Your task to perform on an android device: View the shopping cart on amazon.com. Image 0: 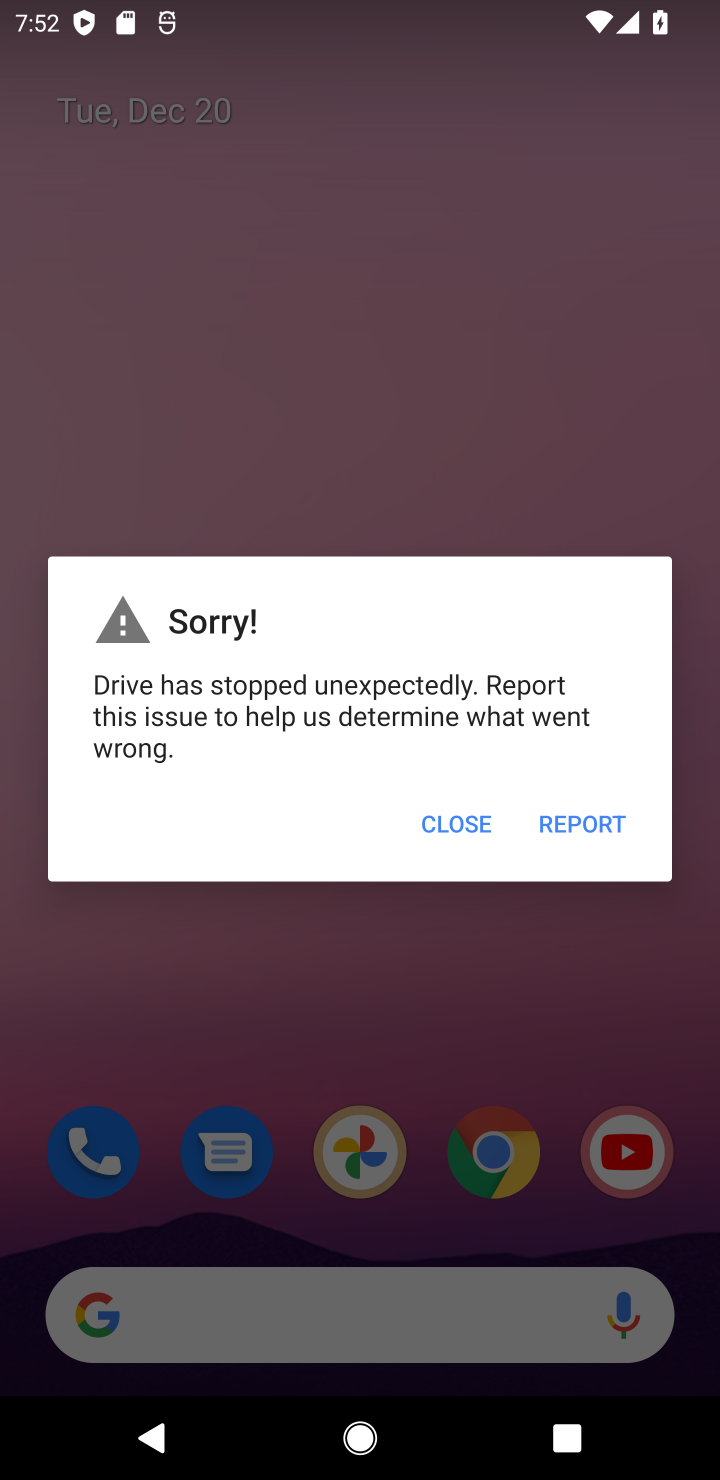
Step 0: press home button
Your task to perform on an android device: View the shopping cart on amazon.com. Image 1: 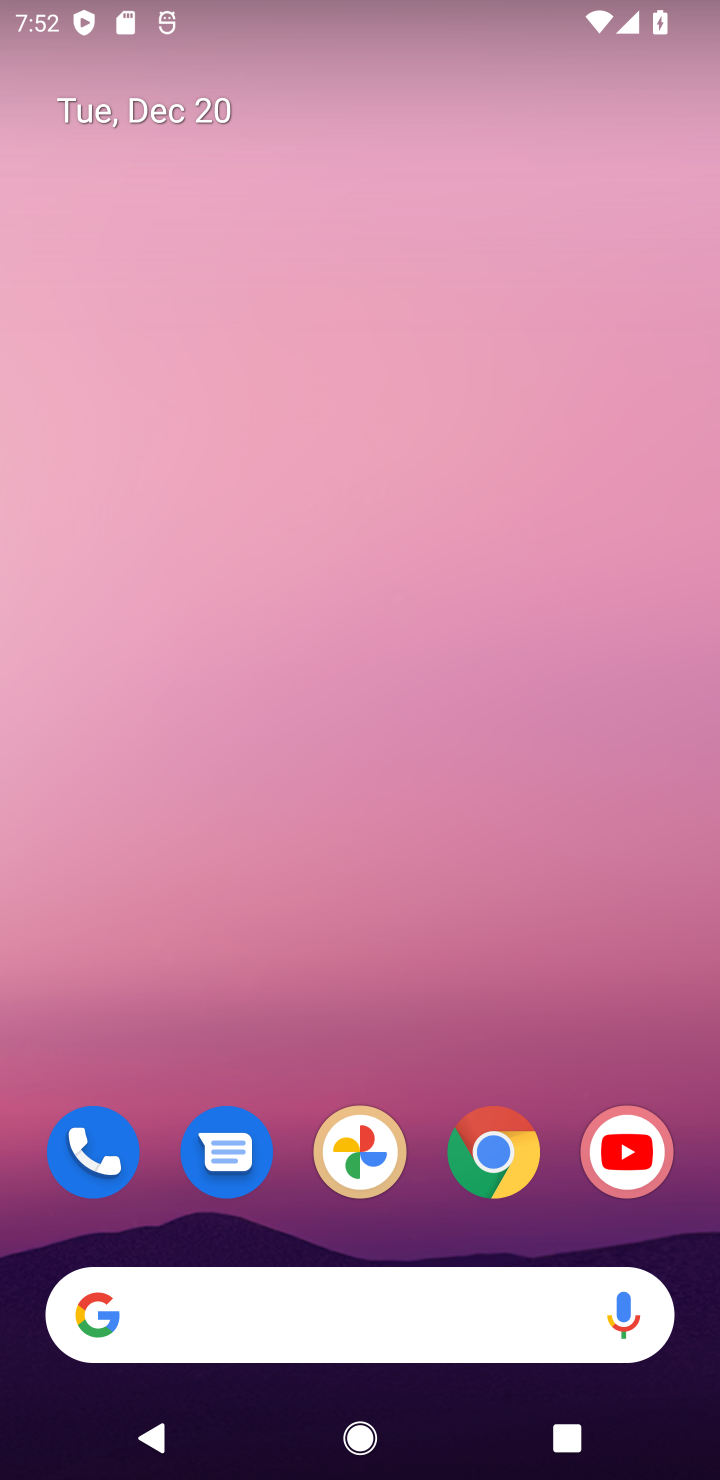
Step 1: click (489, 1158)
Your task to perform on an android device: View the shopping cart on amazon.com. Image 2: 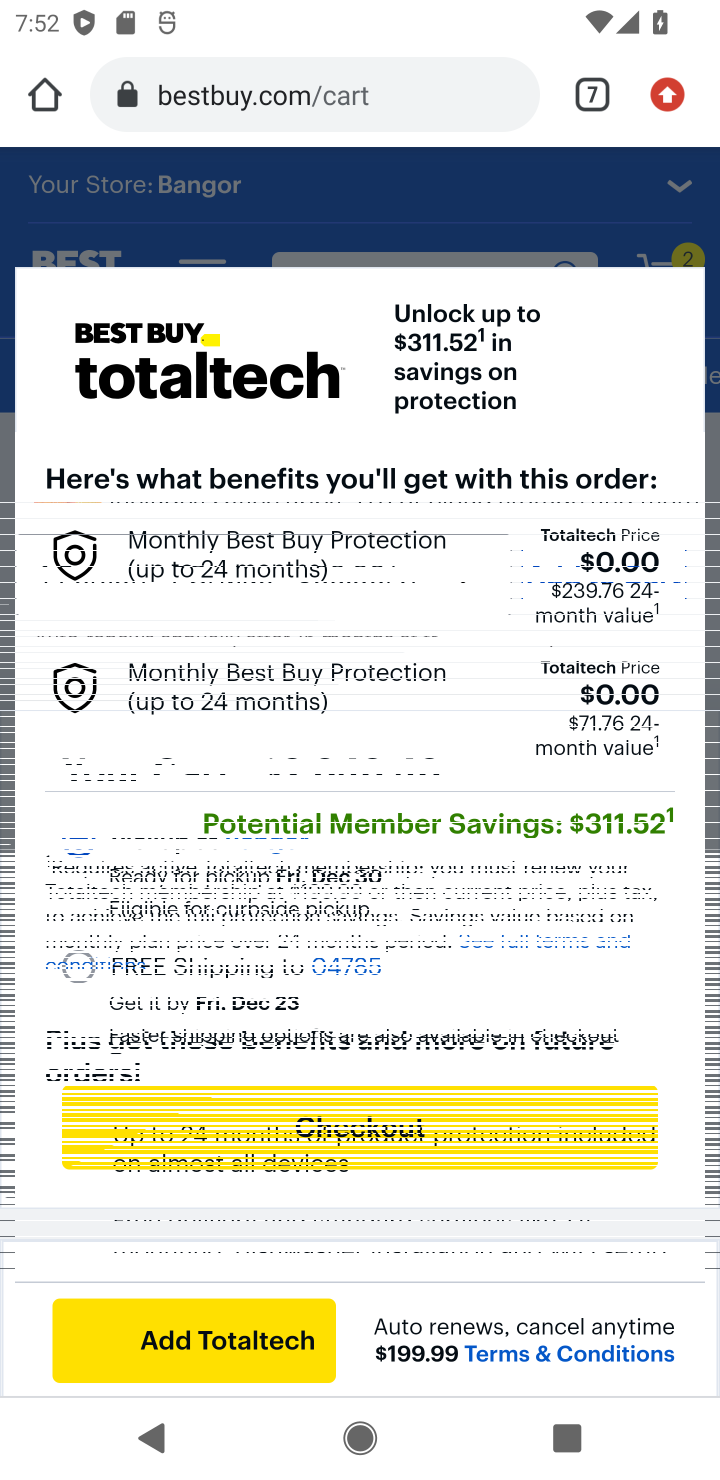
Step 2: click (591, 105)
Your task to perform on an android device: View the shopping cart on amazon.com. Image 3: 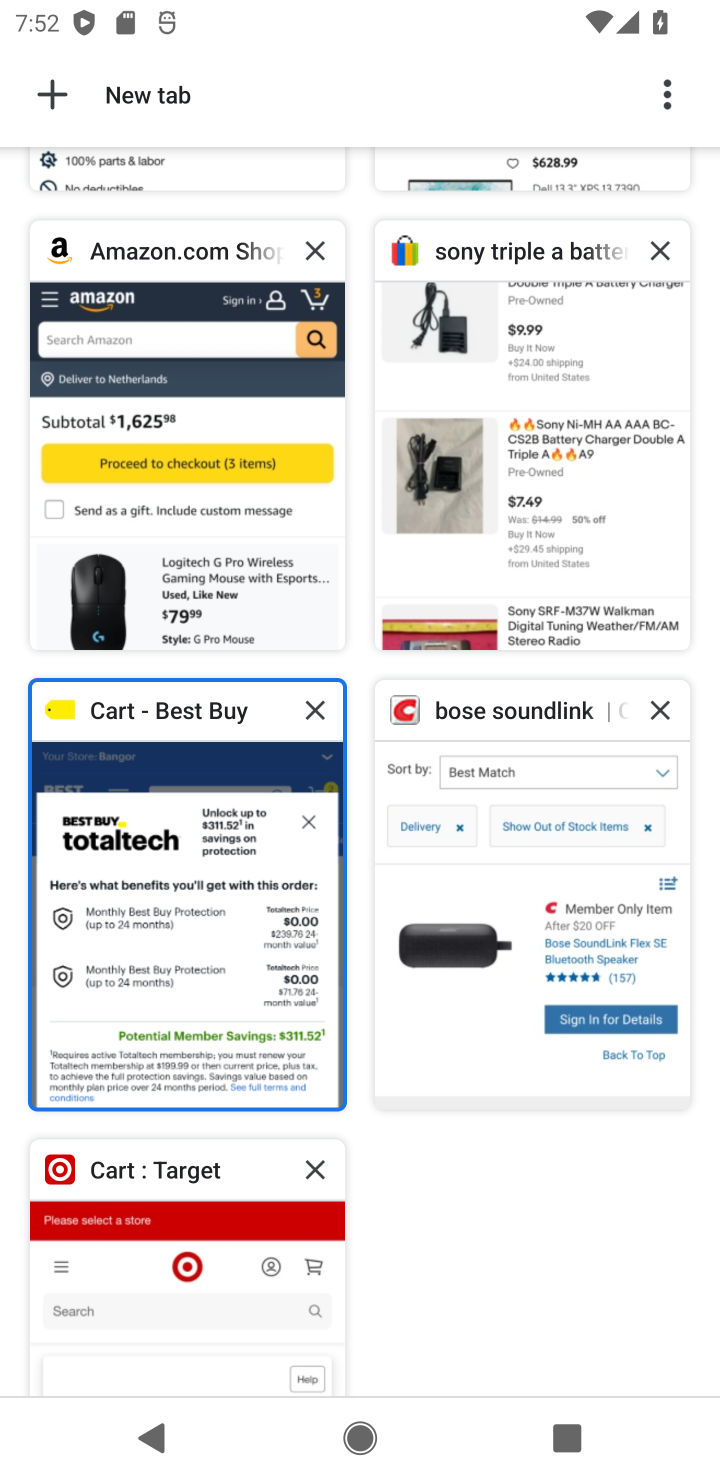
Step 3: click (194, 389)
Your task to perform on an android device: View the shopping cart on amazon.com. Image 4: 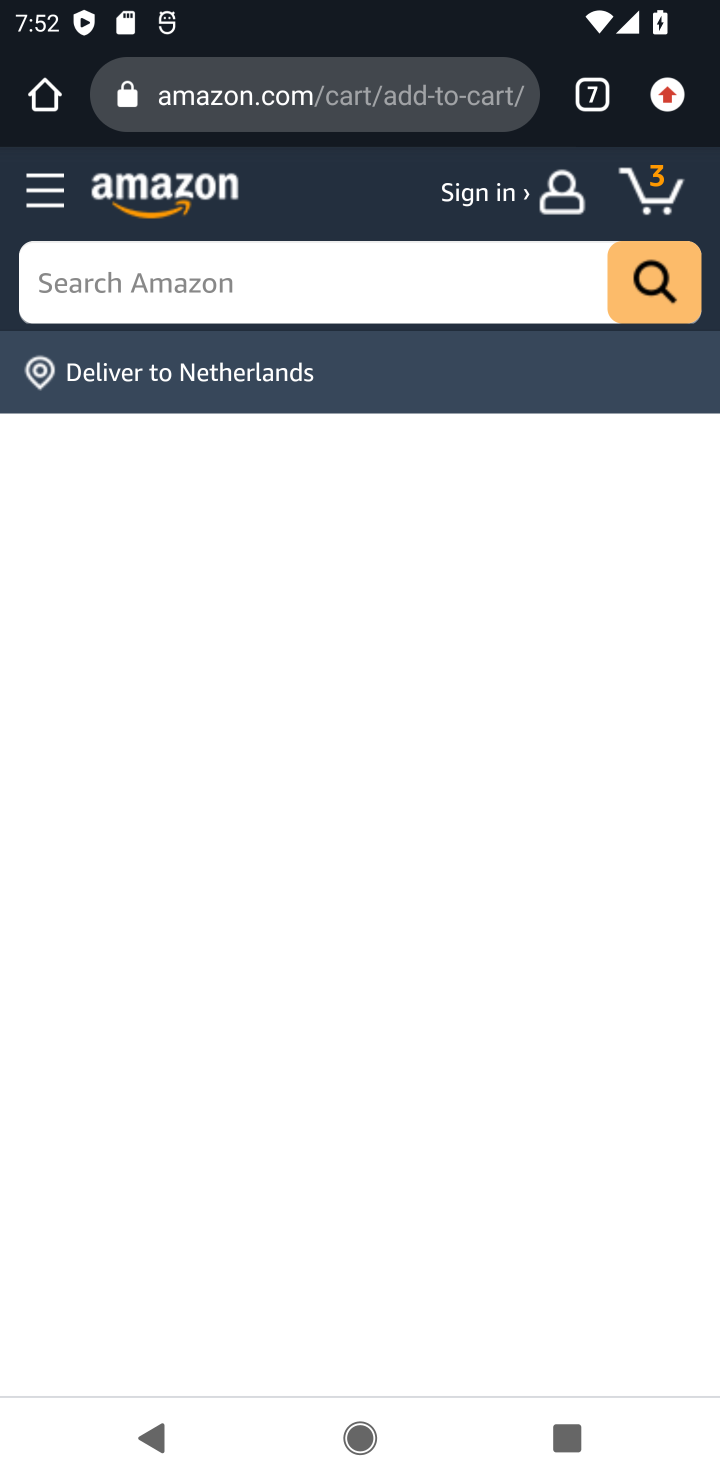
Step 4: click (658, 188)
Your task to perform on an android device: View the shopping cart on amazon.com. Image 5: 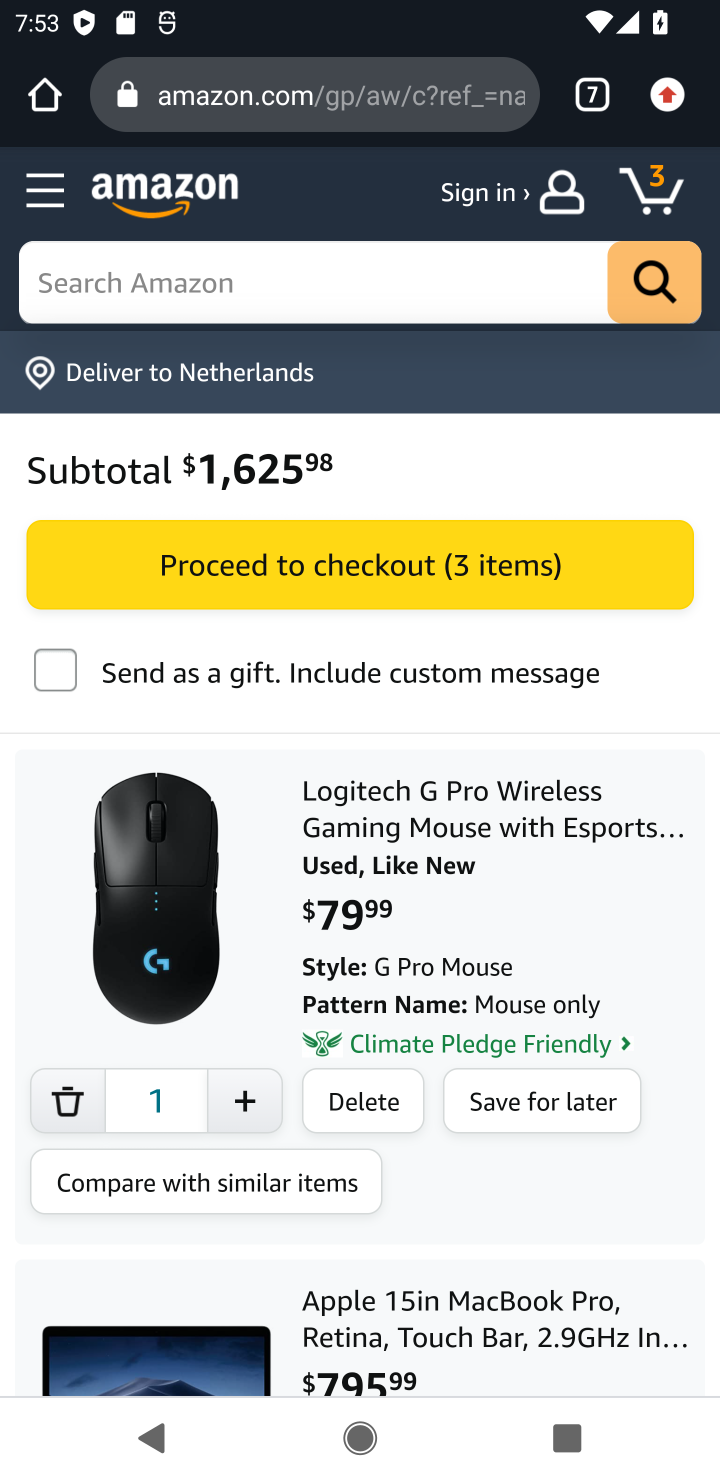
Step 5: task complete